Your task to perform on an android device: change the clock display to digital Image 0: 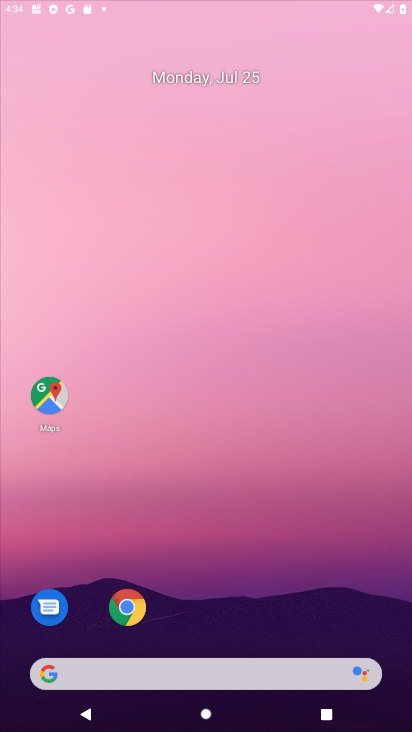
Step 0: press home button
Your task to perform on an android device: change the clock display to digital Image 1: 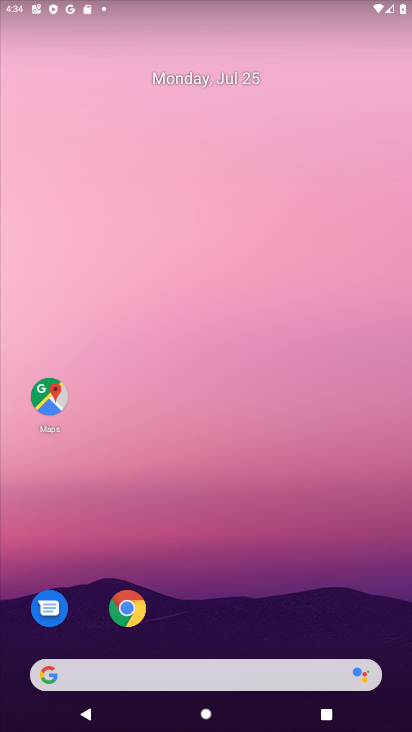
Step 1: drag from (205, 597) to (303, 4)
Your task to perform on an android device: change the clock display to digital Image 2: 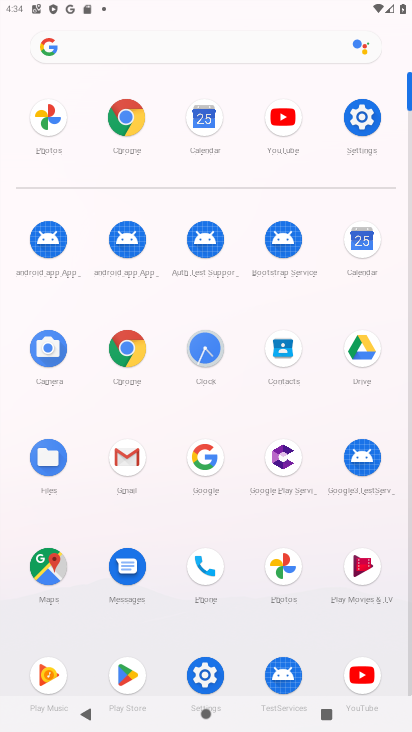
Step 2: click (209, 334)
Your task to perform on an android device: change the clock display to digital Image 3: 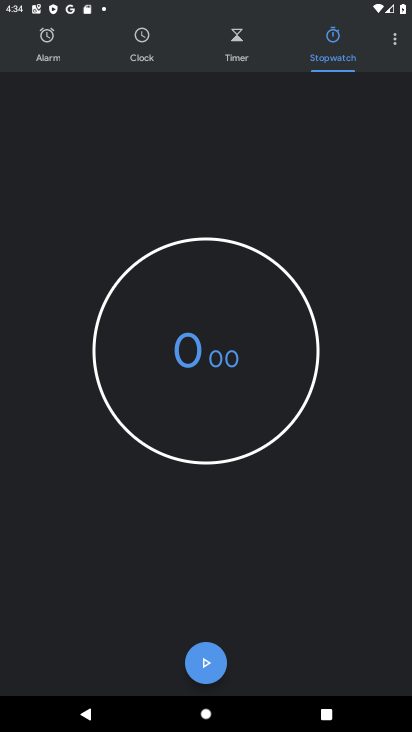
Step 3: click (393, 46)
Your task to perform on an android device: change the clock display to digital Image 4: 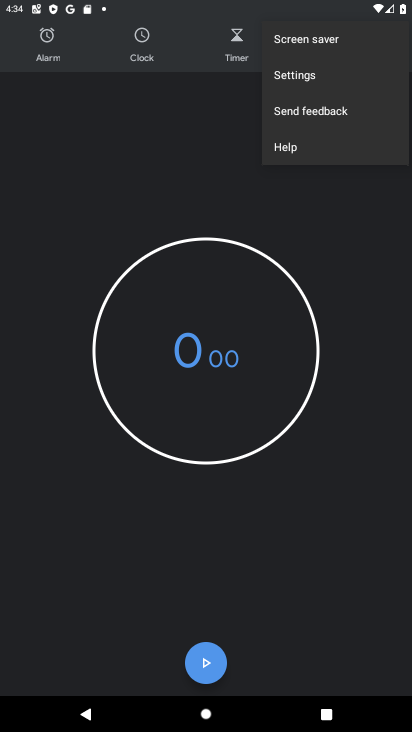
Step 4: click (312, 69)
Your task to perform on an android device: change the clock display to digital Image 5: 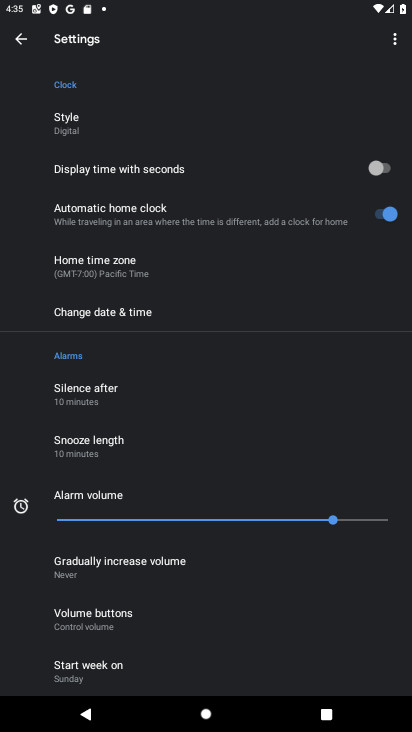
Step 5: click (103, 123)
Your task to perform on an android device: change the clock display to digital Image 6: 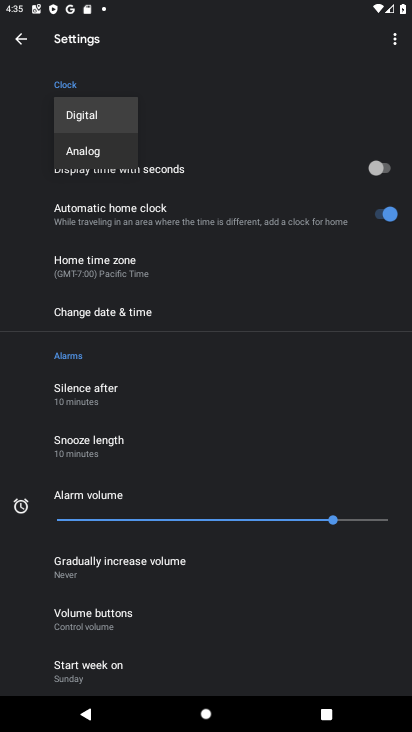
Step 6: click (100, 114)
Your task to perform on an android device: change the clock display to digital Image 7: 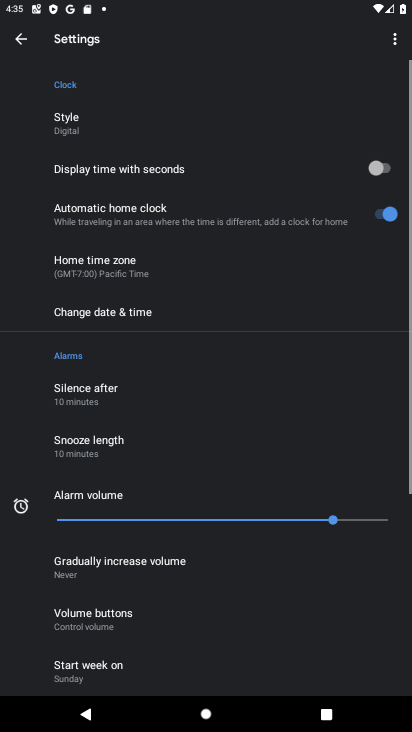
Step 7: task complete